Your task to perform on an android device: check android version Image 0: 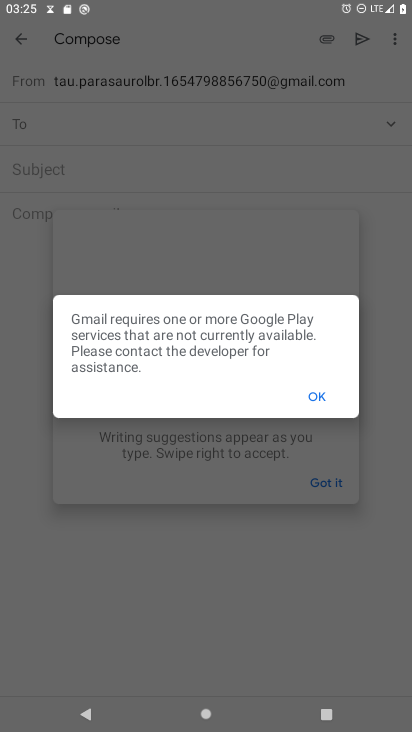
Step 0: press home button
Your task to perform on an android device: check android version Image 1: 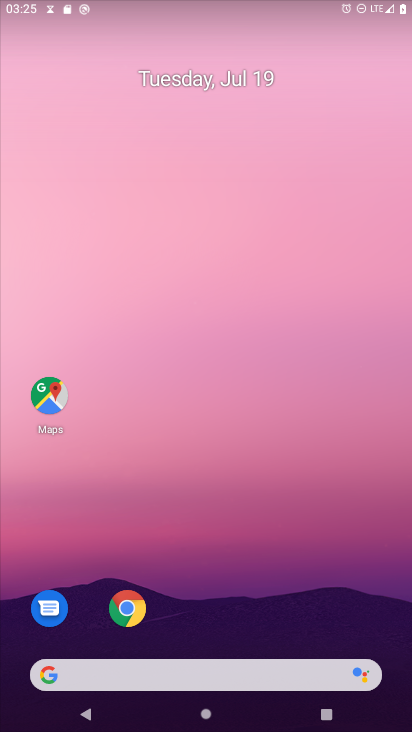
Step 1: drag from (260, 651) to (317, 58)
Your task to perform on an android device: check android version Image 2: 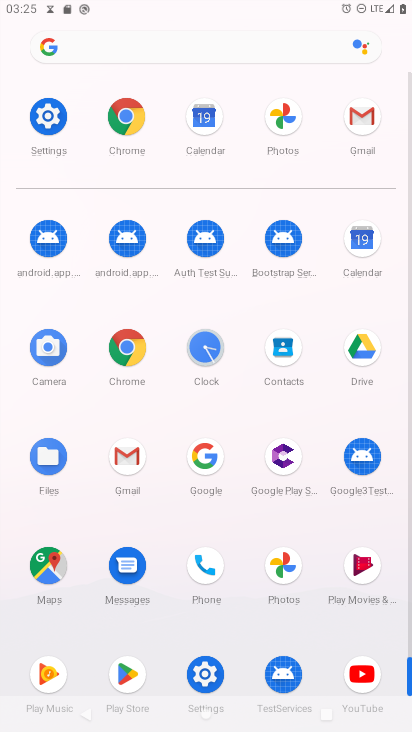
Step 2: click (34, 116)
Your task to perform on an android device: check android version Image 3: 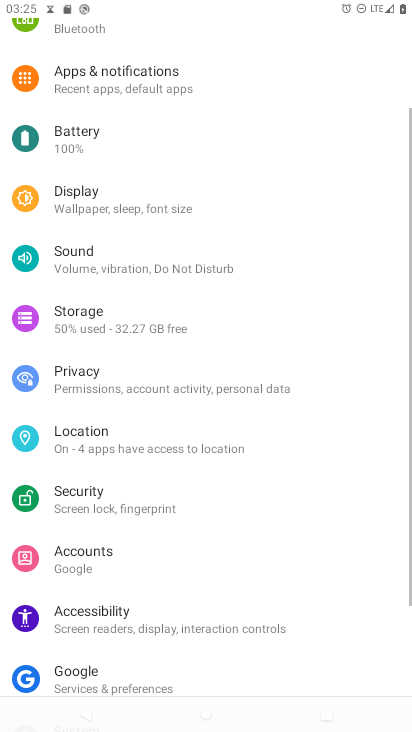
Step 3: press home button
Your task to perform on an android device: check android version Image 4: 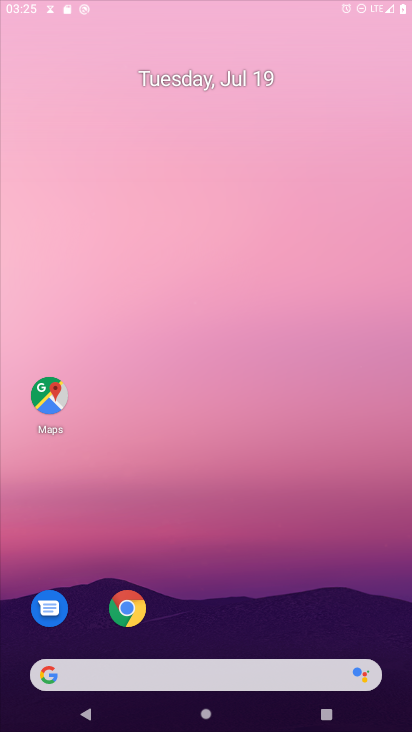
Step 4: drag from (242, 647) to (325, 61)
Your task to perform on an android device: check android version Image 5: 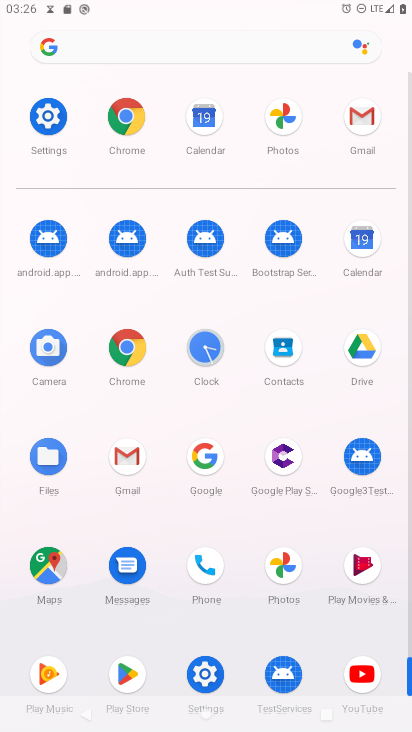
Step 5: click (62, 112)
Your task to perform on an android device: check android version Image 6: 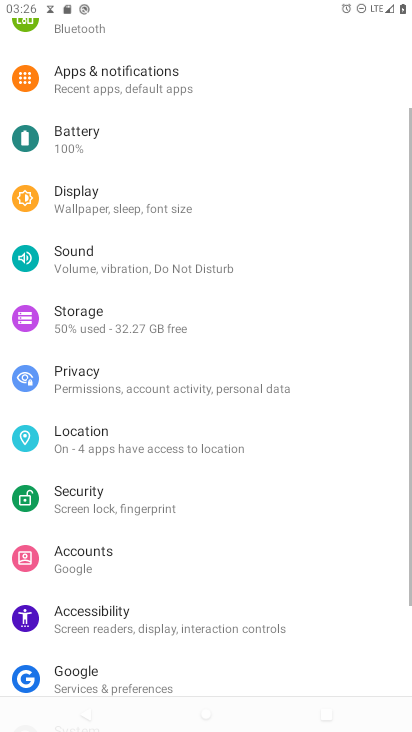
Step 6: drag from (183, 689) to (255, 69)
Your task to perform on an android device: check android version Image 7: 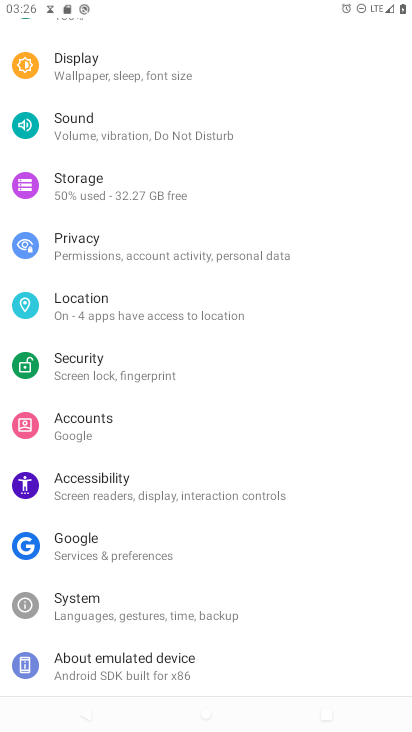
Step 7: click (122, 683)
Your task to perform on an android device: check android version Image 8: 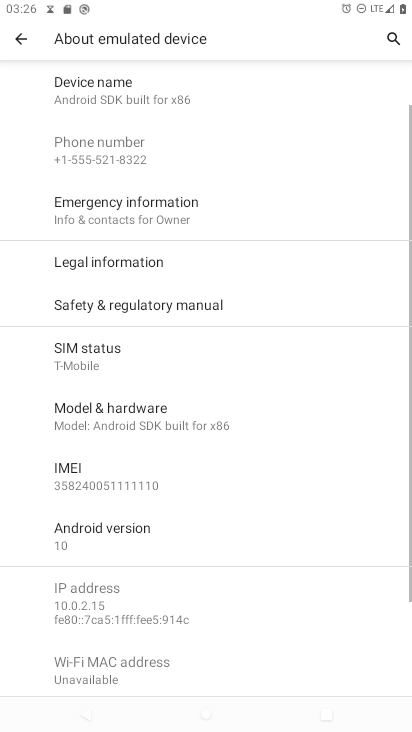
Step 8: click (122, 512)
Your task to perform on an android device: check android version Image 9: 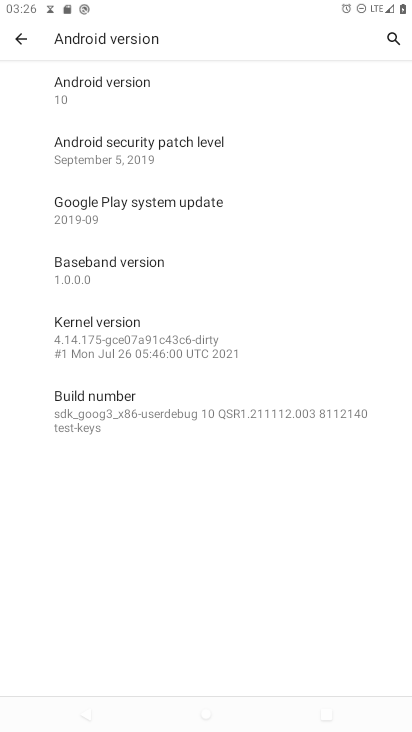
Step 9: task complete